Your task to perform on an android device: toggle show notifications on the lock screen Image 0: 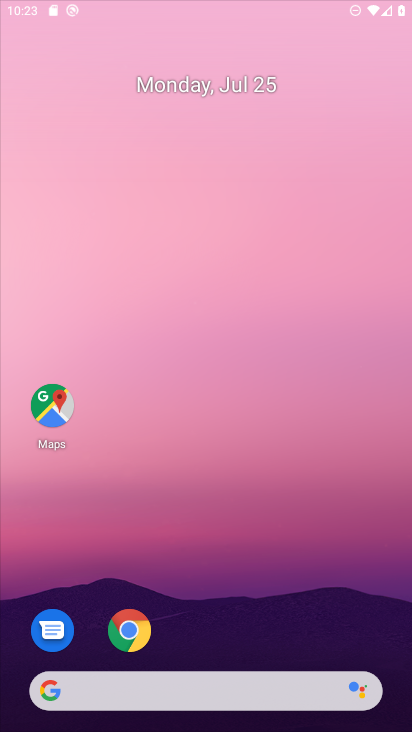
Step 0: click (275, 155)
Your task to perform on an android device: toggle show notifications on the lock screen Image 1: 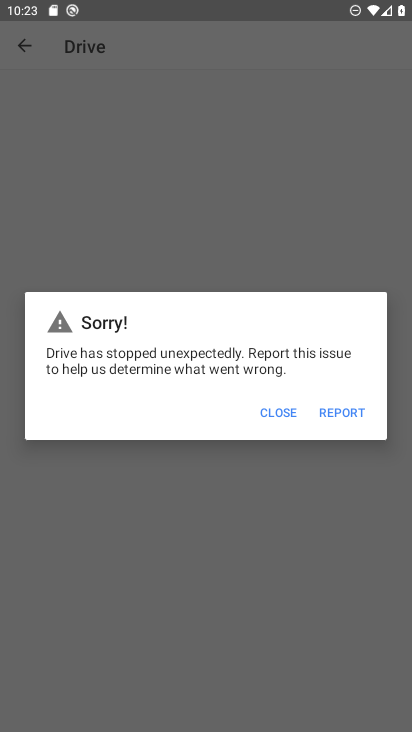
Step 1: press home button
Your task to perform on an android device: toggle show notifications on the lock screen Image 2: 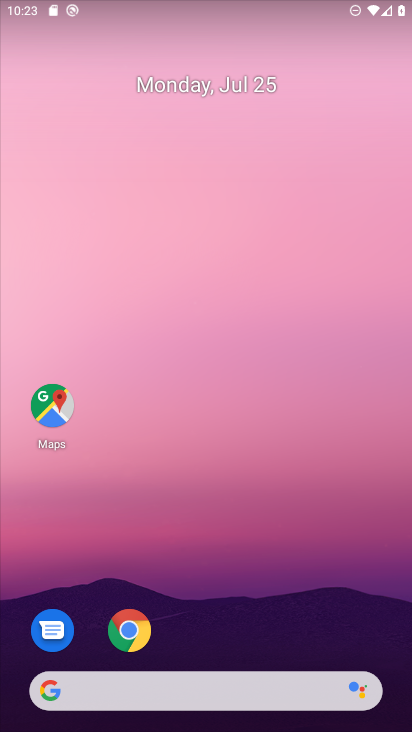
Step 2: drag from (281, 606) to (213, 77)
Your task to perform on an android device: toggle show notifications on the lock screen Image 3: 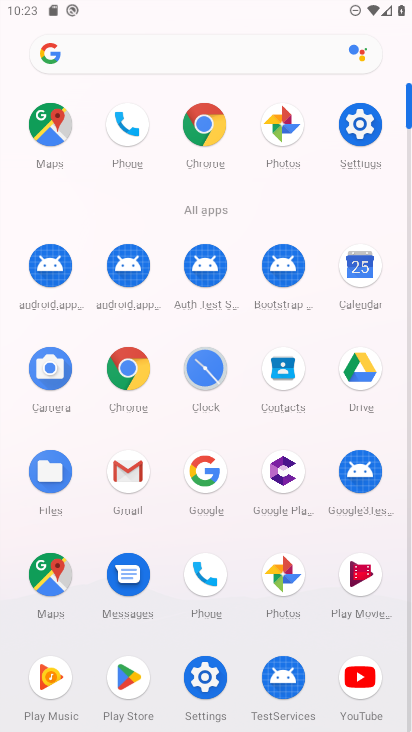
Step 3: click (367, 128)
Your task to perform on an android device: toggle show notifications on the lock screen Image 4: 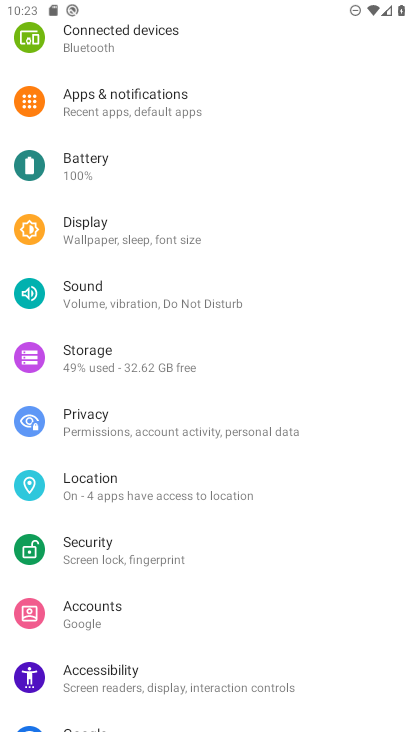
Step 4: click (128, 112)
Your task to perform on an android device: toggle show notifications on the lock screen Image 5: 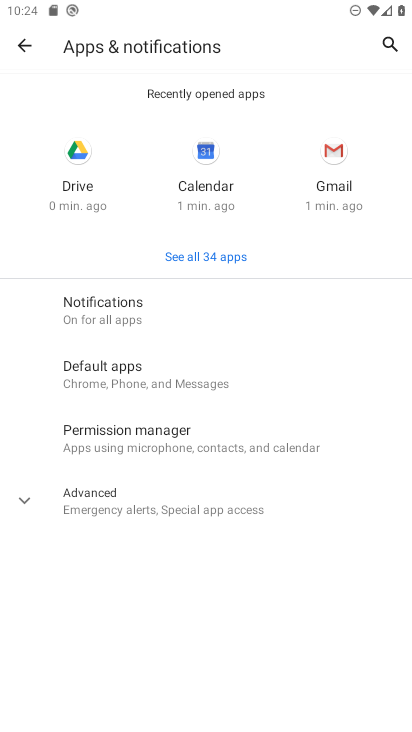
Step 5: click (148, 320)
Your task to perform on an android device: toggle show notifications on the lock screen Image 6: 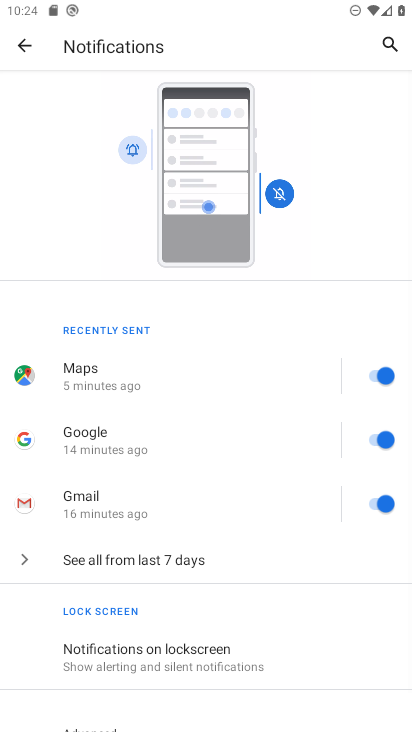
Step 6: click (185, 643)
Your task to perform on an android device: toggle show notifications on the lock screen Image 7: 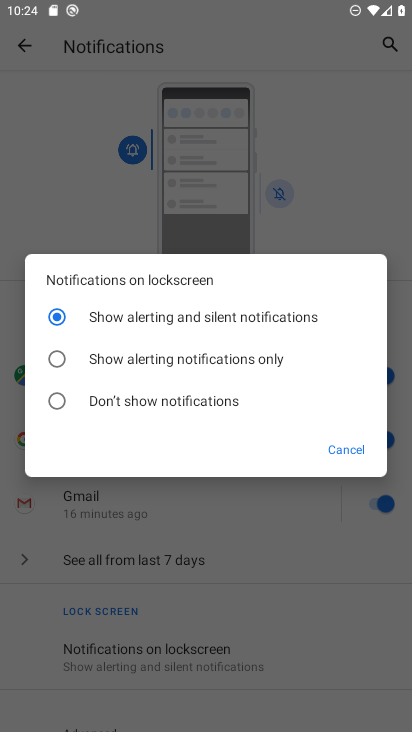
Step 7: click (244, 361)
Your task to perform on an android device: toggle show notifications on the lock screen Image 8: 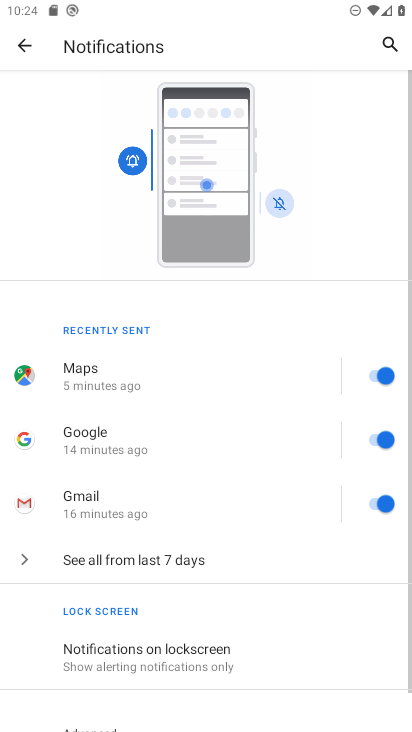
Step 8: task complete